Your task to perform on an android device: Open Reddit.com Image 0: 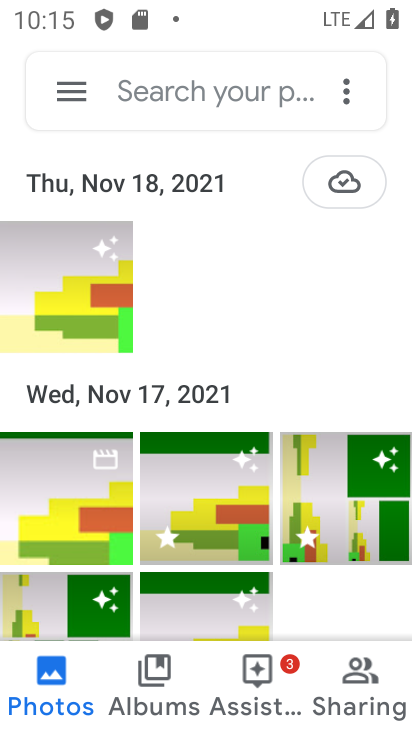
Step 0: press home button
Your task to perform on an android device: Open Reddit.com Image 1: 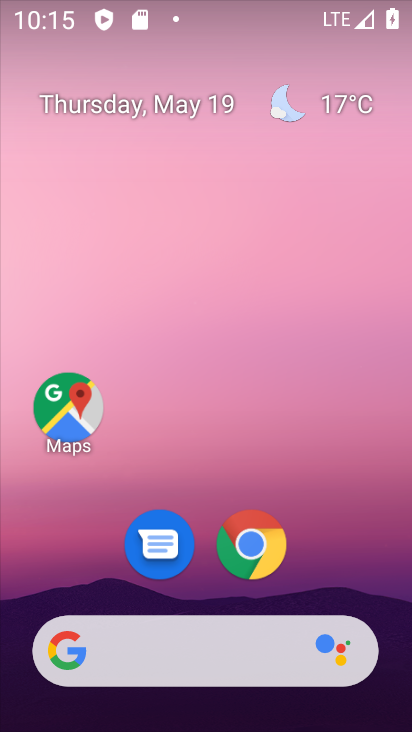
Step 1: click (203, 652)
Your task to perform on an android device: Open Reddit.com Image 2: 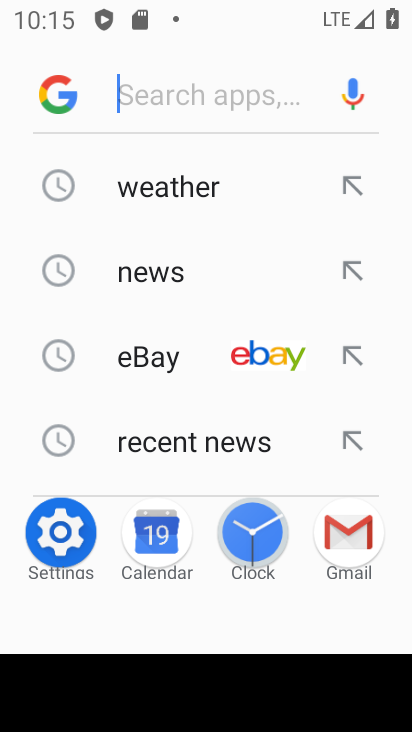
Step 2: click (237, 99)
Your task to perform on an android device: Open Reddit.com Image 3: 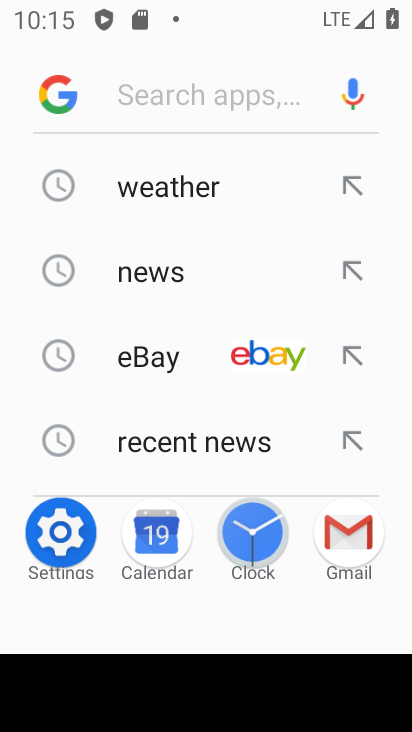
Step 3: type "reddit.com"
Your task to perform on an android device: Open Reddit.com Image 4: 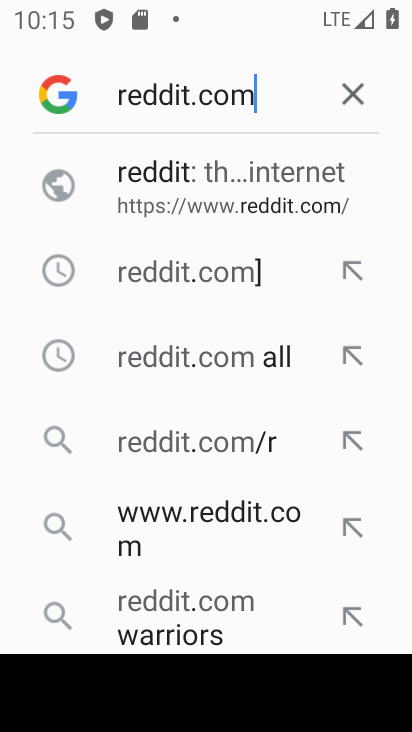
Step 4: click (240, 169)
Your task to perform on an android device: Open Reddit.com Image 5: 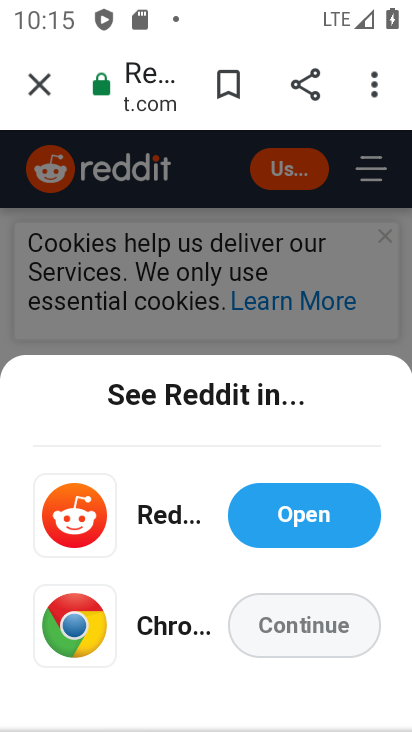
Step 5: task complete